Your task to perform on an android device: Search for vegetarian restaurants on Maps Image 0: 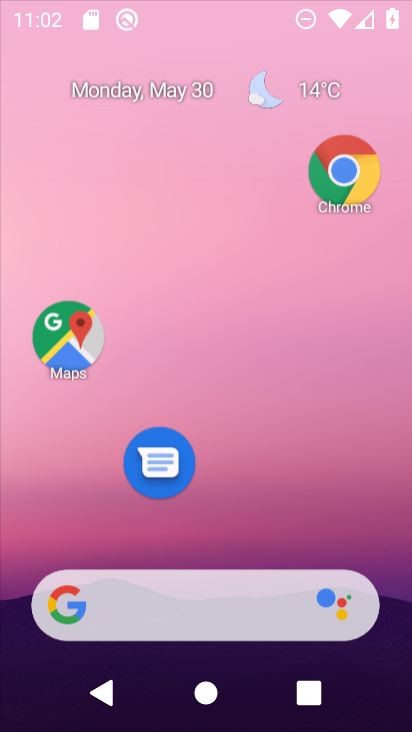
Step 0: drag from (254, 0) to (223, 30)
Your task to perform on an android device: Search for vegetarian restaurants on Maps Image 1: 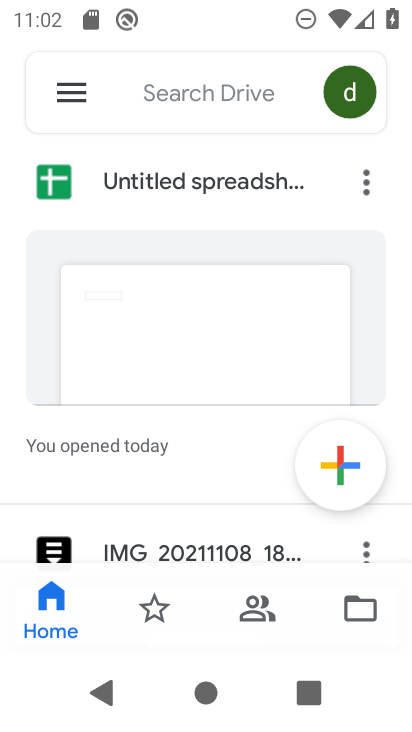
Step 1: press home button
Your task to perform on an android device: Search for vegetarian restaurants on Maps Image 2: 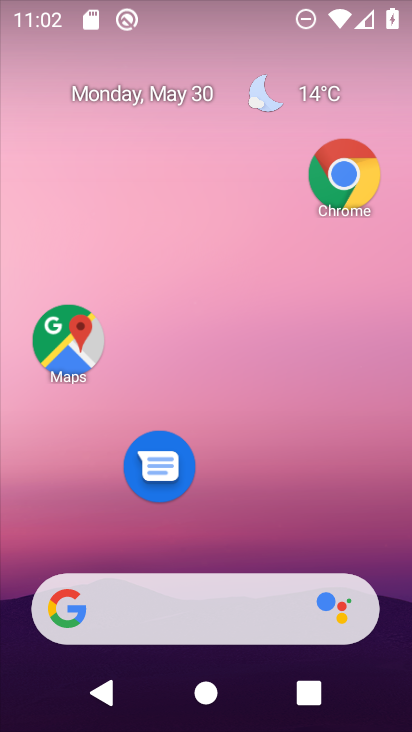
Step 2: click (48, 359)
Your task to perform on an android device: Search for vegetarian restaurants on Maps Image 3: 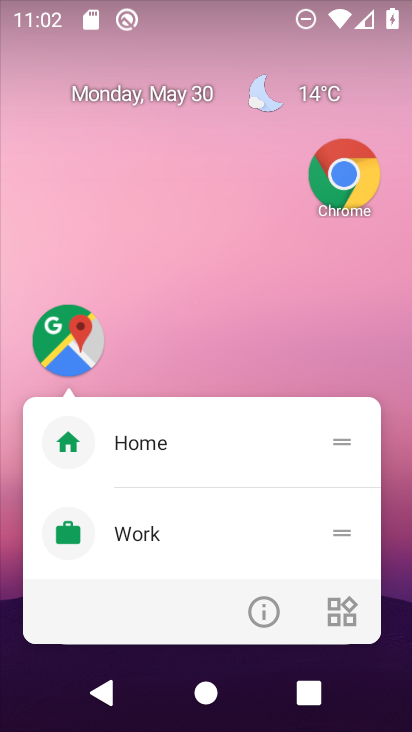
Step 3: click (57, 351)
Your task to perform on an android device: Search for vegetarian restaurants on Maps Image 4: 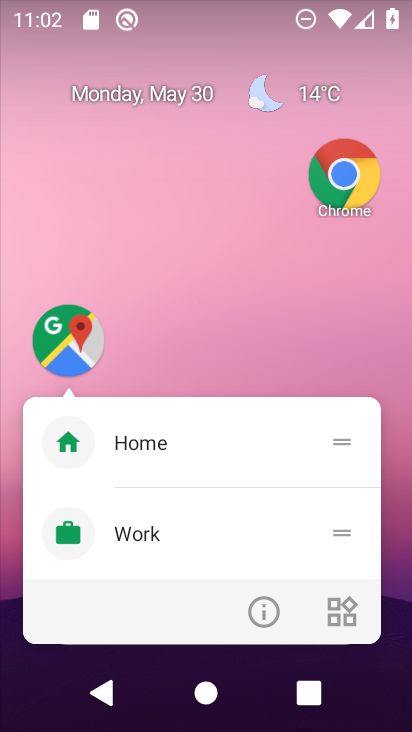
Step 4: click (61, 339)
Your task to perform on an android device: Search for vegetarian restaurants on Maps Image 5: 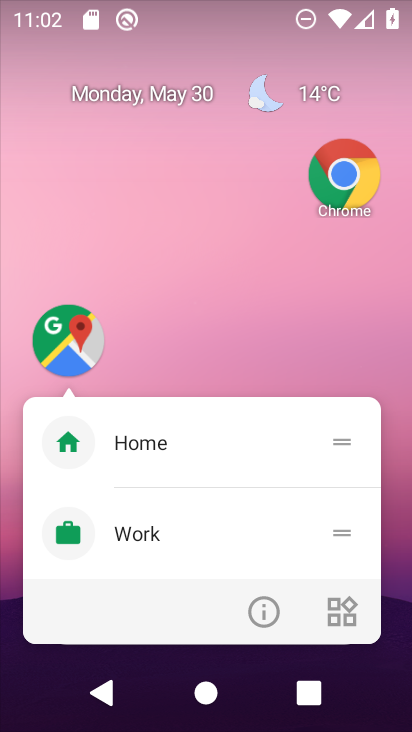
Step 5: click (65, 332)
Your task to perform on an android device: Search for vegetarian restaurants on Maps Image 6: 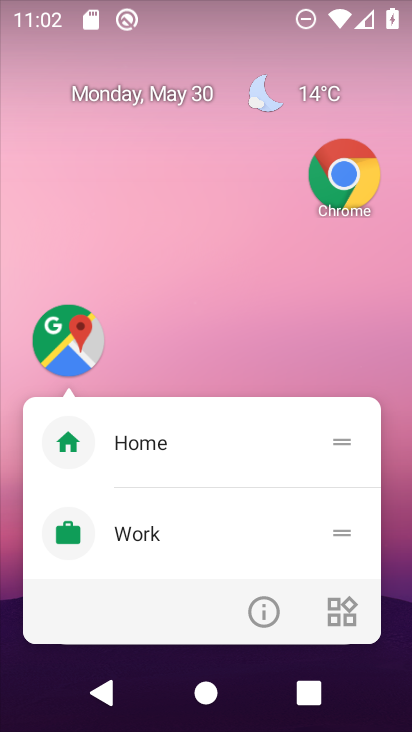
Step 6: click (75, 327)
Your task to perform on an android device: Search for vegetarian restaurants on Maps Image 7: 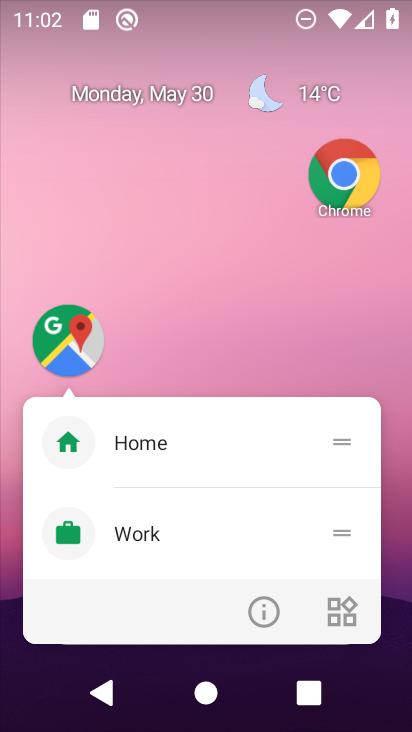
Step 7: click (72, 320)
Your task to perform on an android device: Search for vegetarian restaurants on Maps Image 8: 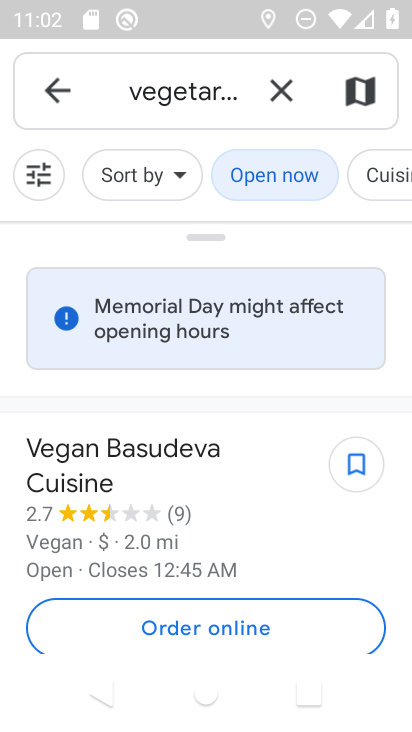
Step 8: drag from (126, 248) to (251, 668)
Your task to perform on an android device: Search for vegetarian restaurants on Maps Image 9: 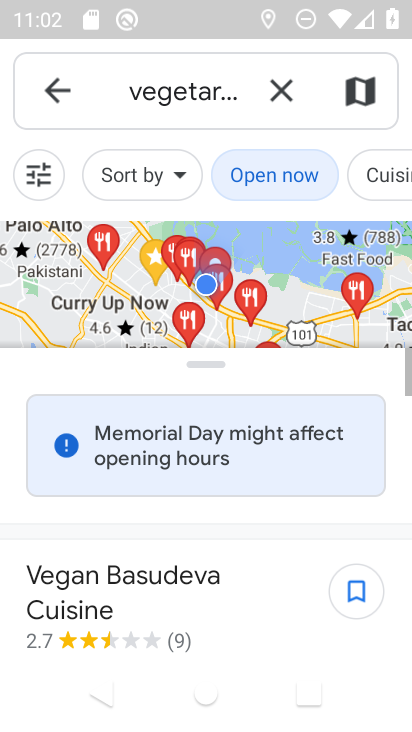
Step 9: drag from (230, 325) to (330, 568)
Your task to perform on an android device: Search for vegetarian restaurants on Maps Image 10: 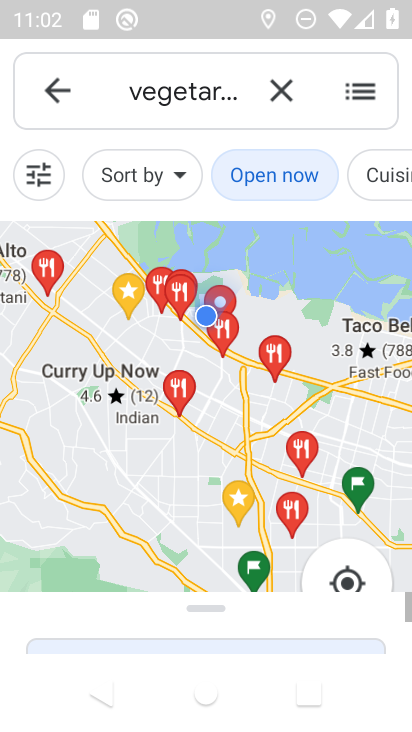
Step 10: drag from (316, 609) to (246, 229)
Your task to perform on an android device: Search for vegetarian restaurants on Maps Image 11: 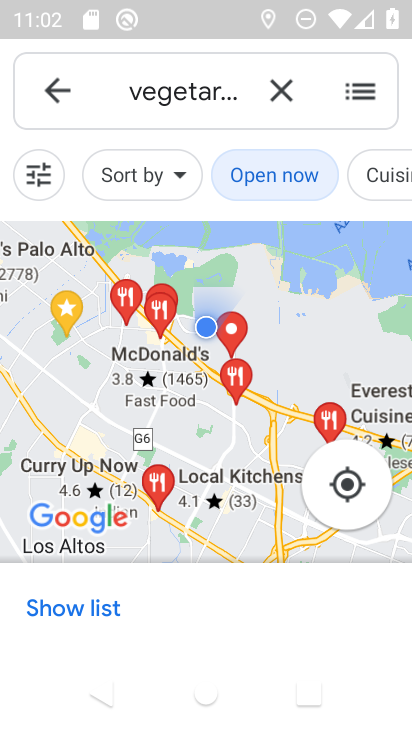
Step 11: click (276, 86)
Your task to perform on an android device: Search for vegetarian restaurants on Maps Image 12: 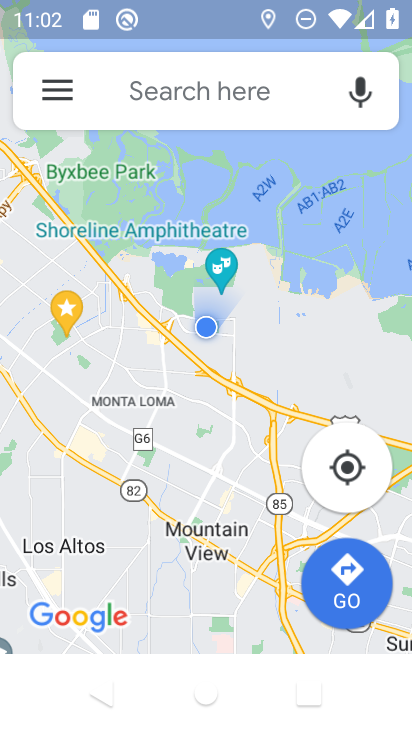
Step 12: click (242, 77)
Your task to perform on an android device: Search for vegetarian restaurants on Maps Image 13: 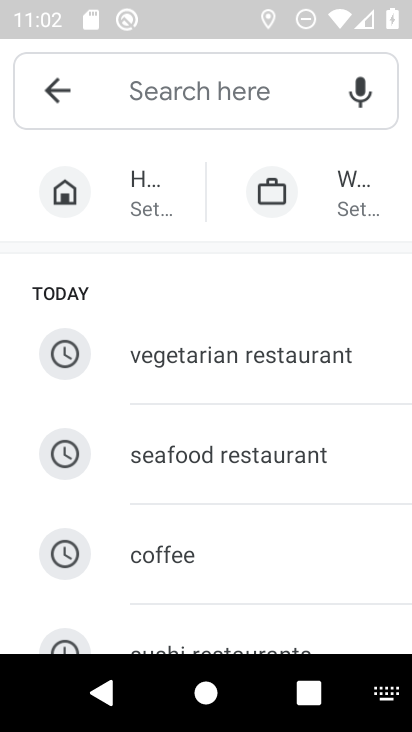
Step 13: click (295, 351)
Your task to perform on an android device: Search for vegetarian restaurants on Maps Image 14: 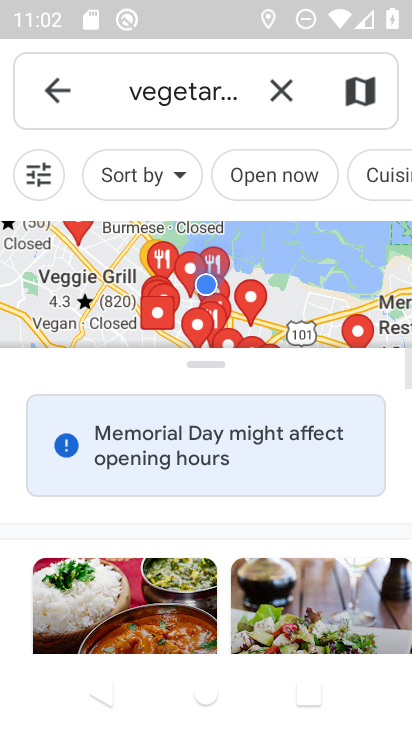
Step 14: task complete